Your task to perform on an android device: add a contact Image 0: 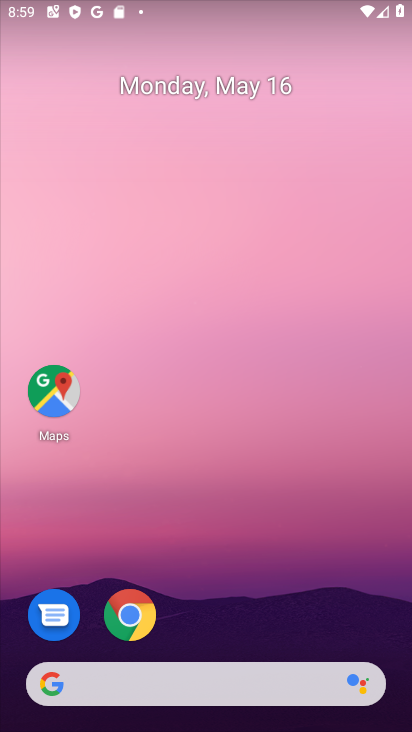
Step 0: drag from (137, 496) to (333, 110)
Your task to perform on an android device: add a contact Image 1: 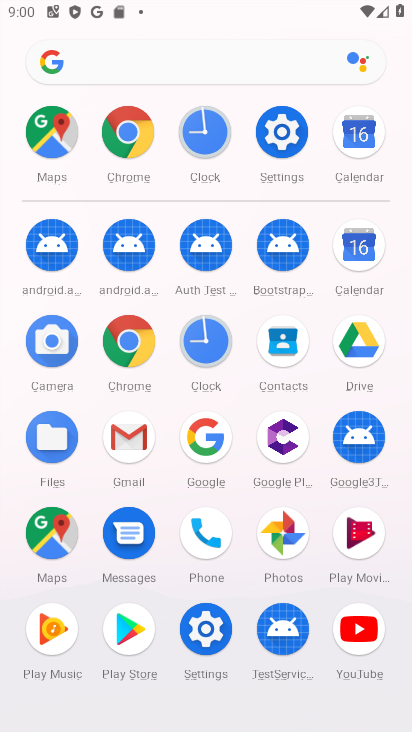
Step 1: click (201, 529)
Your task to perform on an android device: add a contact Image 2: 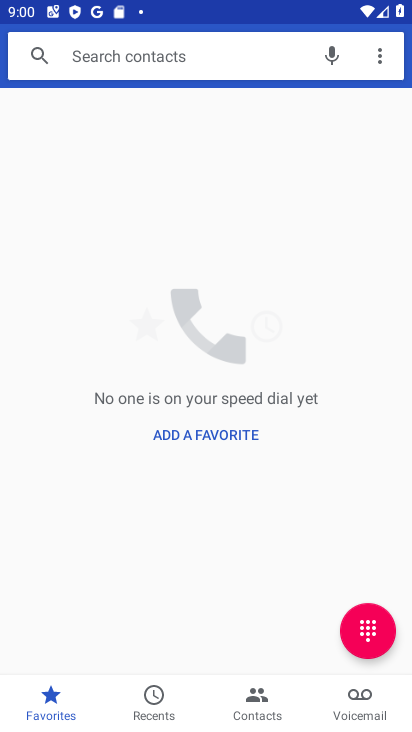
Step 2: click (250, 697)
Your task to perform on an android device: add a contact Image 3: 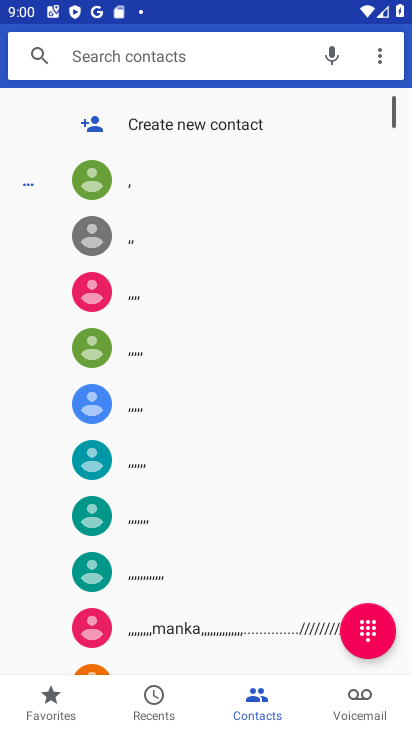
Step 3: click (273, 124)
Your task to perform on an android device: add a contact Image 4: 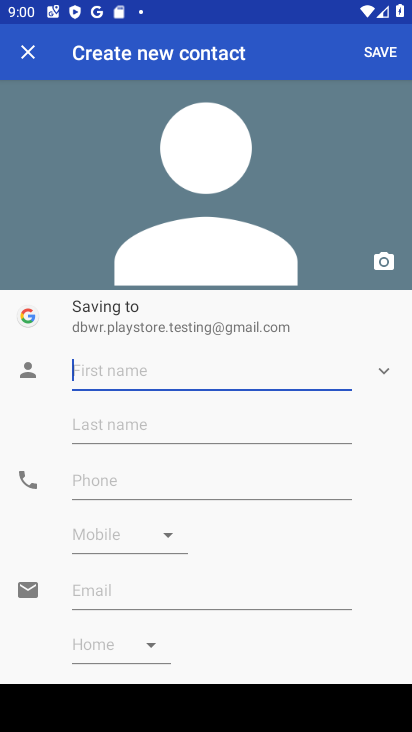
Step 4: click (135, 374)
Your task to perform on an android device: add a contact Image 5: 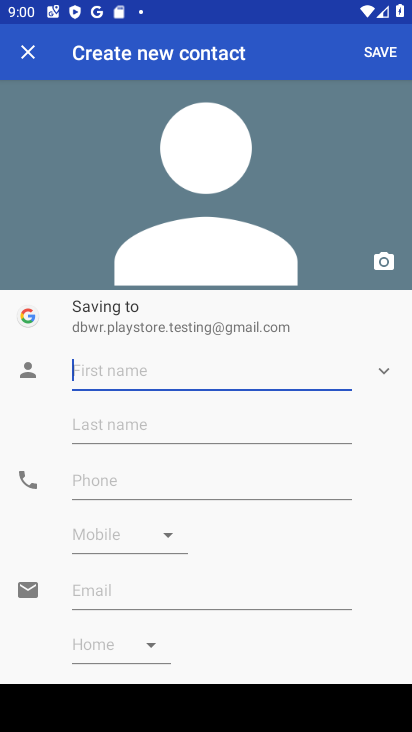
Step 5: type "bgfdsad"
Your task to perform on an android device: add a contact Image 6: 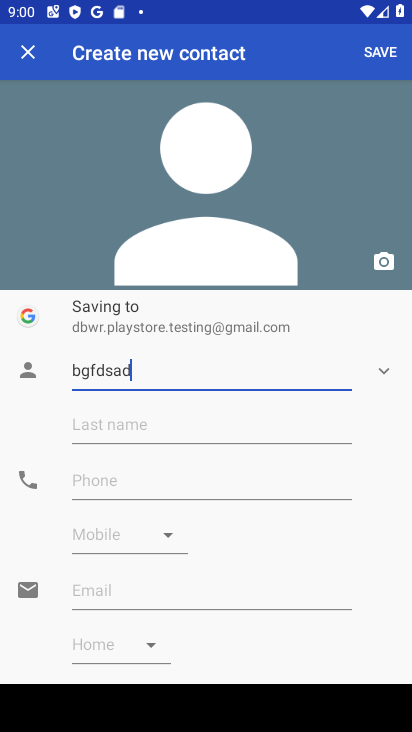
Step 6: type ""
Your task to perform on an android device: add a contact Image 7: 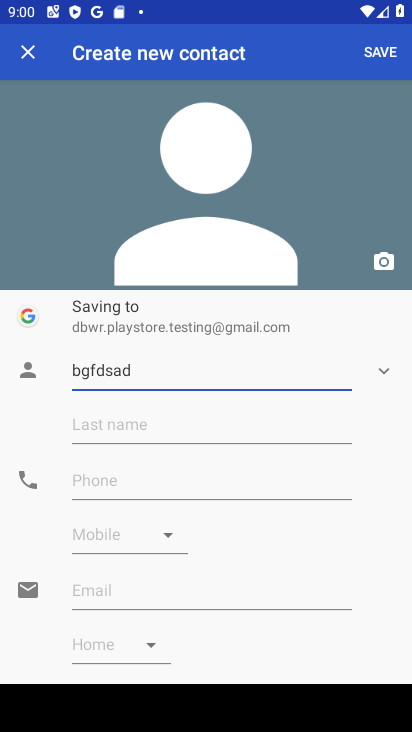
Step 7: click (400, 51)
Your task to perform on an android device: add a contact Image 8: 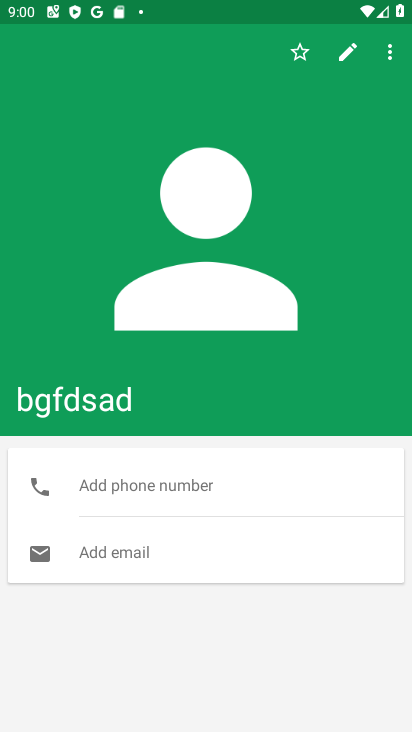
Step 8: task complete